Your task to perform on an android device: turn on improve location accuracy Image 0: 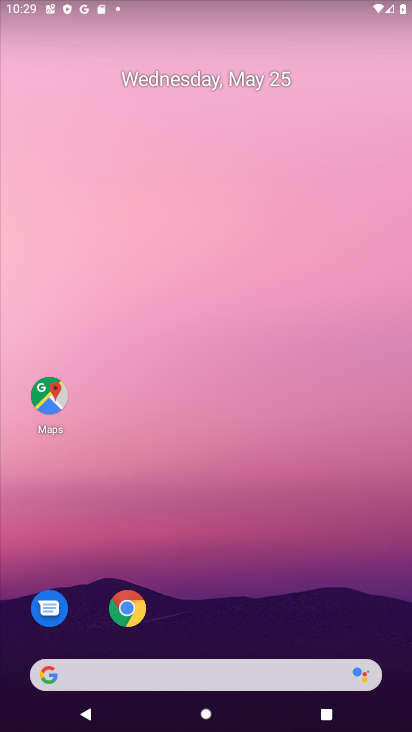
Step 0: drag from (277, 636) to (257, 27)
Your task to perform on an android device: turn on improve location accuracy Image 1: 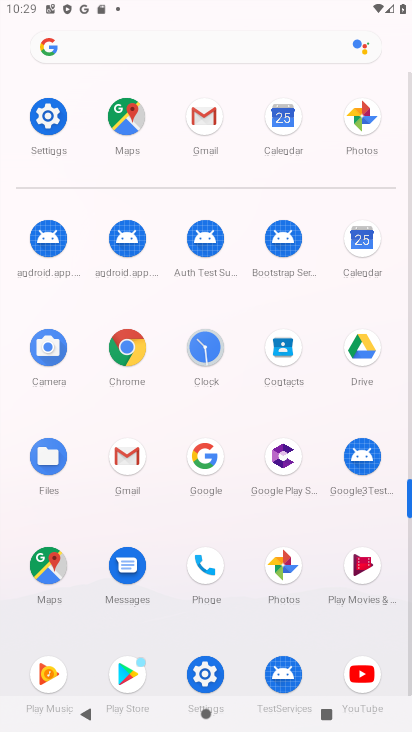
Step 1: click (40, 117)
Your task to perform on an android device: turn on improve location accuracy Image 2: 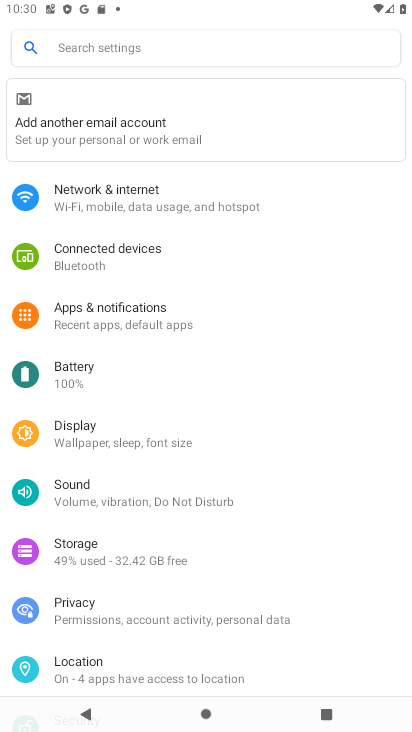
Step 2: click (99, 670)
Your task to perform on an android device: turn on improve location accuracy Image 3: 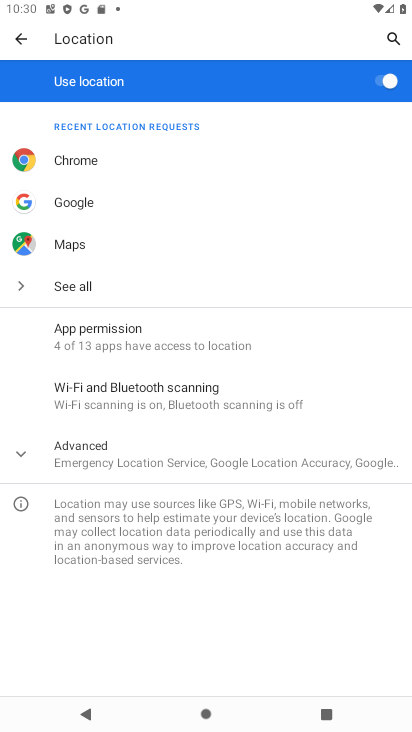
Step 3: click (20, 451)
Your task to perform on an android device: turn on improve location accuracy Image 4: 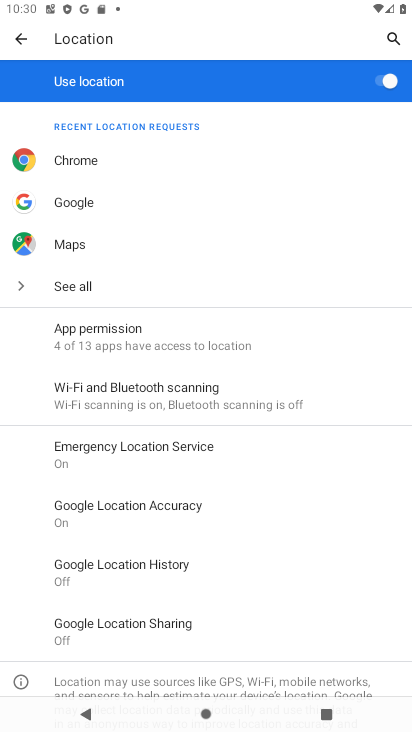
Step 4: click (93, 509)
Your task to perform on an android device: turn on improve location accuracy Image 5: 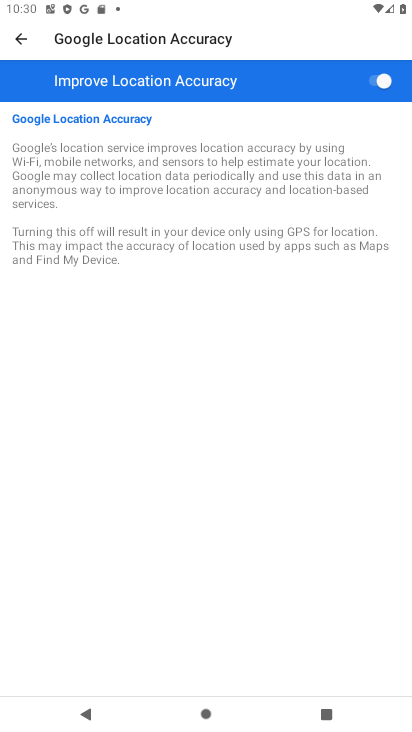
Step 5: task complete